Your task to perform on an android device: Go to location settings Image 0: 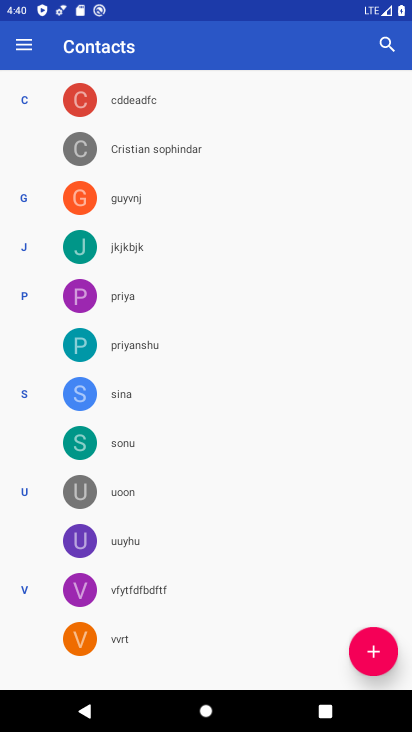
Step 0: press home button
Your task to perform on an android device: Go to location settings Image 1: 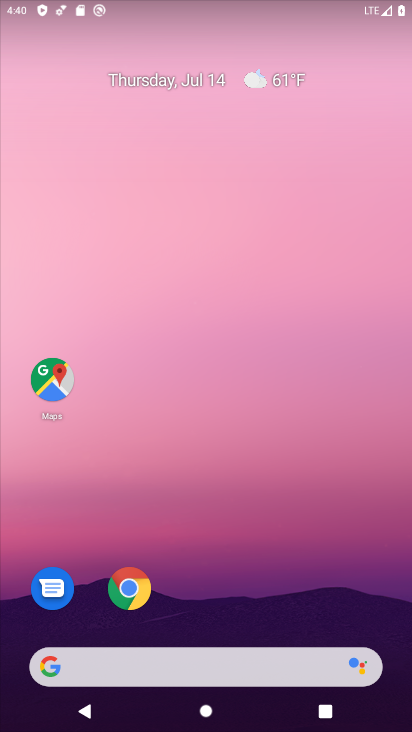
Step 1: drag from (223, 627) to (160, 202)
Your task to perform on an android device: Go to location settings Image 2: 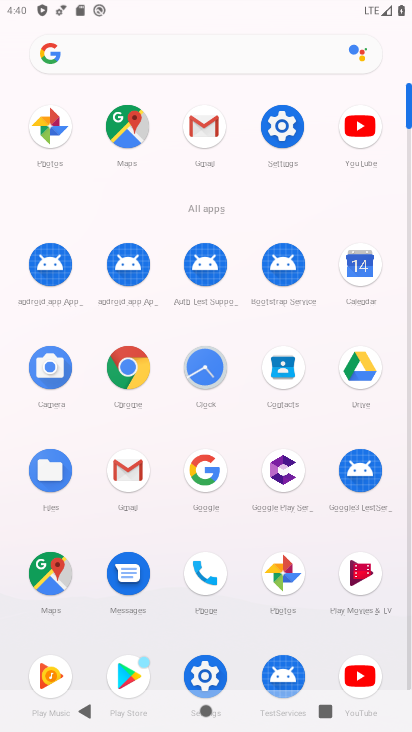
Step 2: click (290, 133)
Your task to perform on an android device: Go to location settings Image 3: 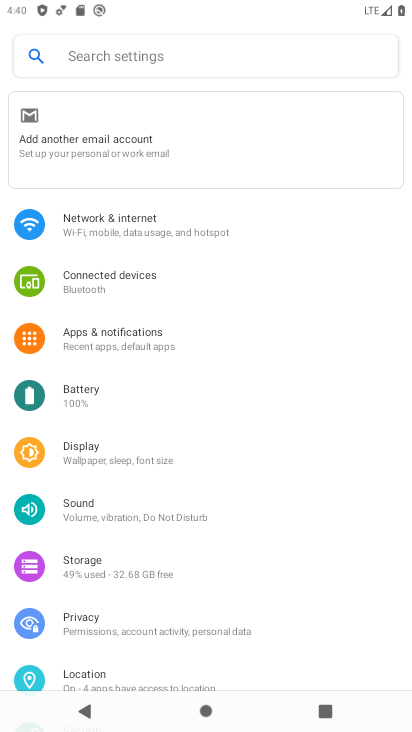
Step 3: click (117, 676)
Your task to perform on an android device: Go to location settings Image 4: 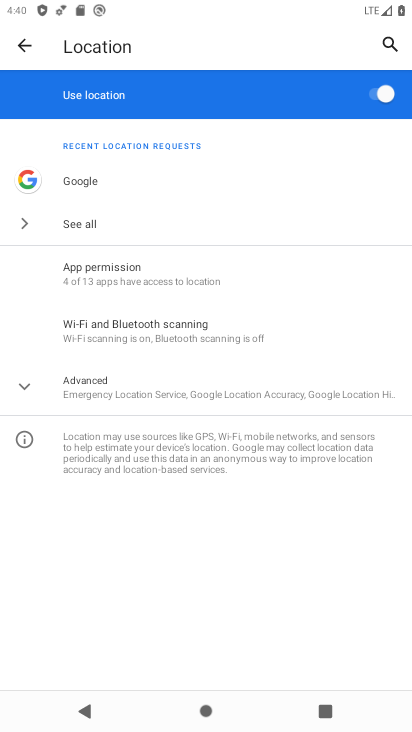
Step 4: task complete